Your task to perform on an android device: turn off smart reply in the gmail app Image 0: 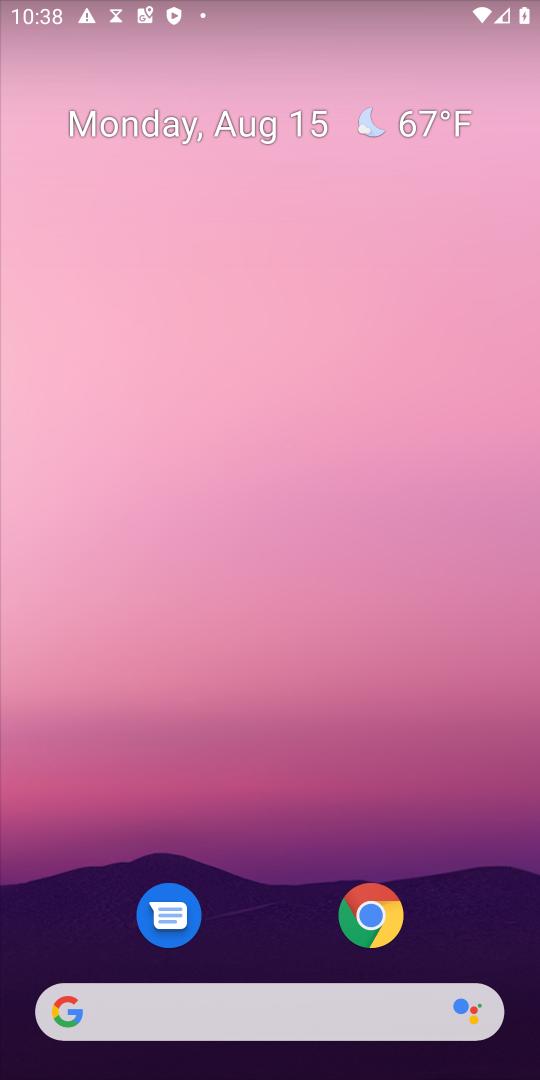
Step 0: press home button
Your task to perform on an android device: turn off smart reply in the gmail app Image 1: 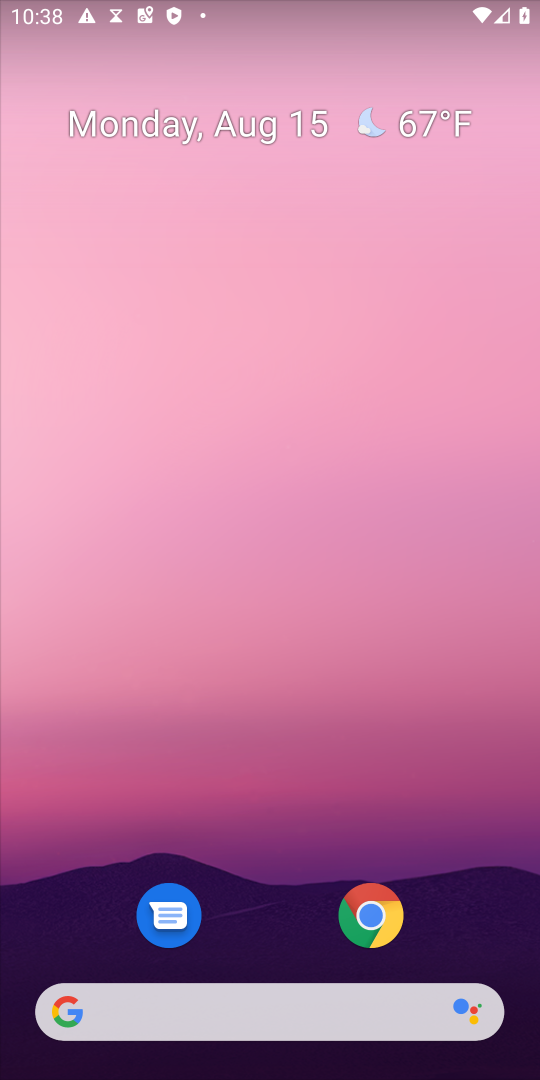
Step 1: drag from (276, 952) to (428, 100)
Your task to perform on an android device: turn off smart reply in the gmail app Image 2: 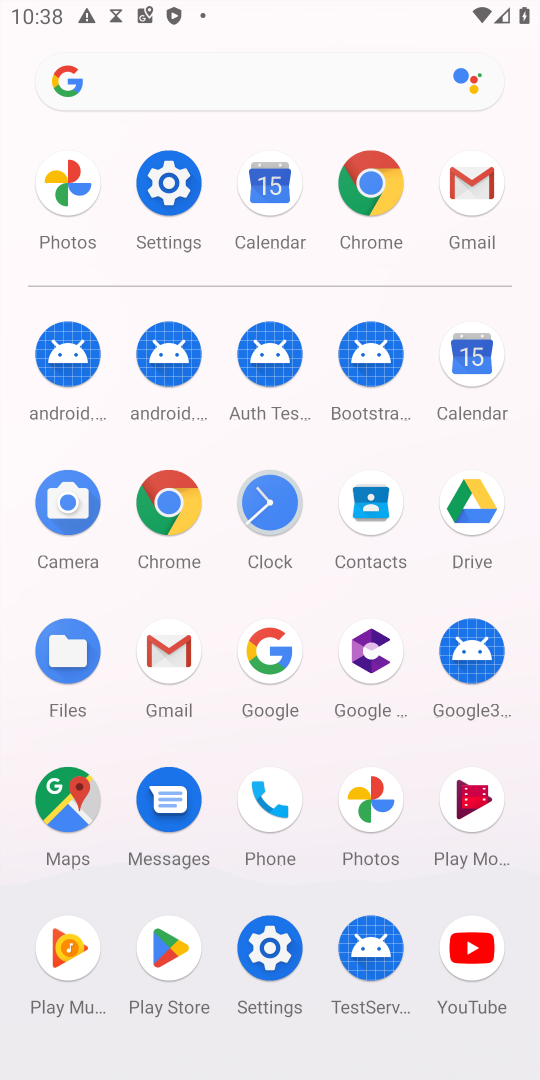
Step 2: click (475, 173)
Your task to perform on an android device: turn off smart reply in the gmail app Image 3: 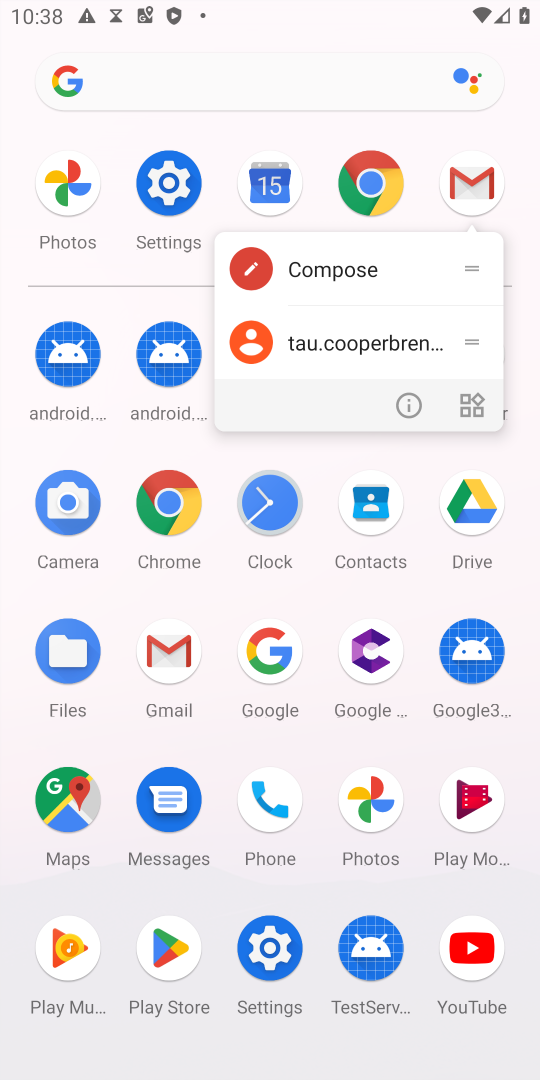
Step 3: click (472, 191)
Your task to perform on an android device: turn off smart reply in the gmail app Image 4: 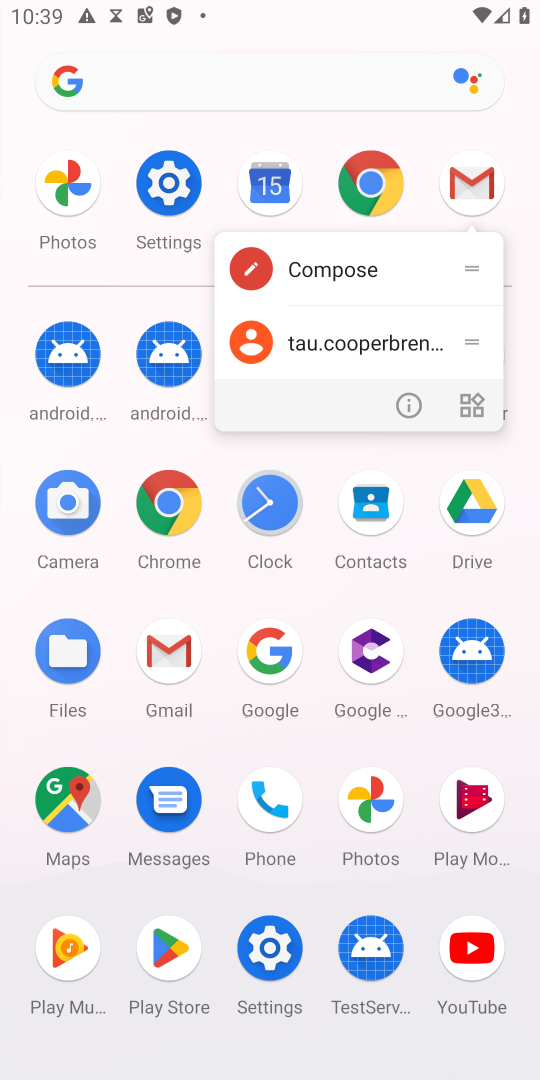
Step 4: click (472, 191)
Your task to perform on an android device: turn off smart reply in the gmail app Image 5: 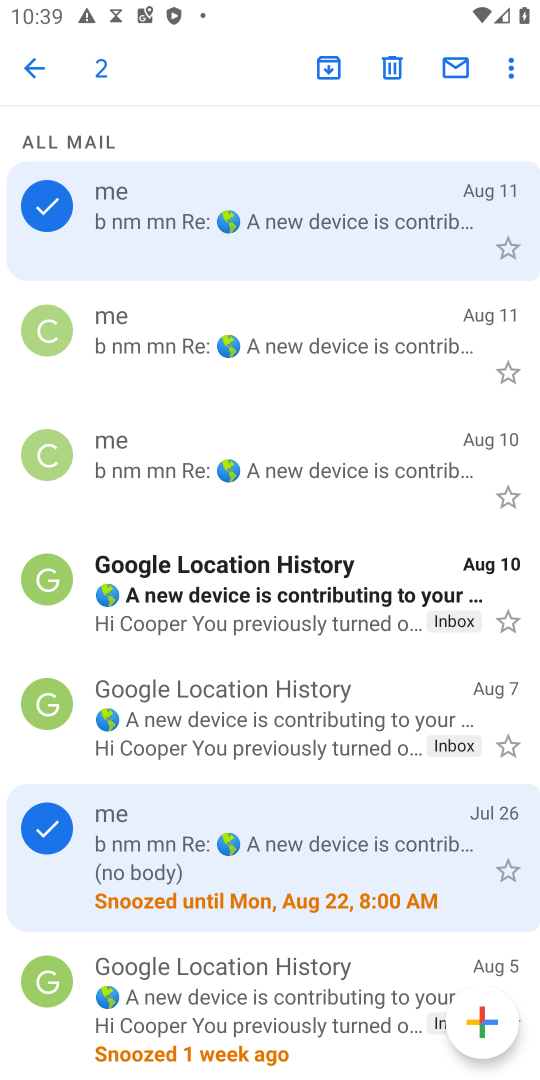
Step 5: press back button
Your task to perform on an android device: turn off smart reply in the gmail app Image 6: 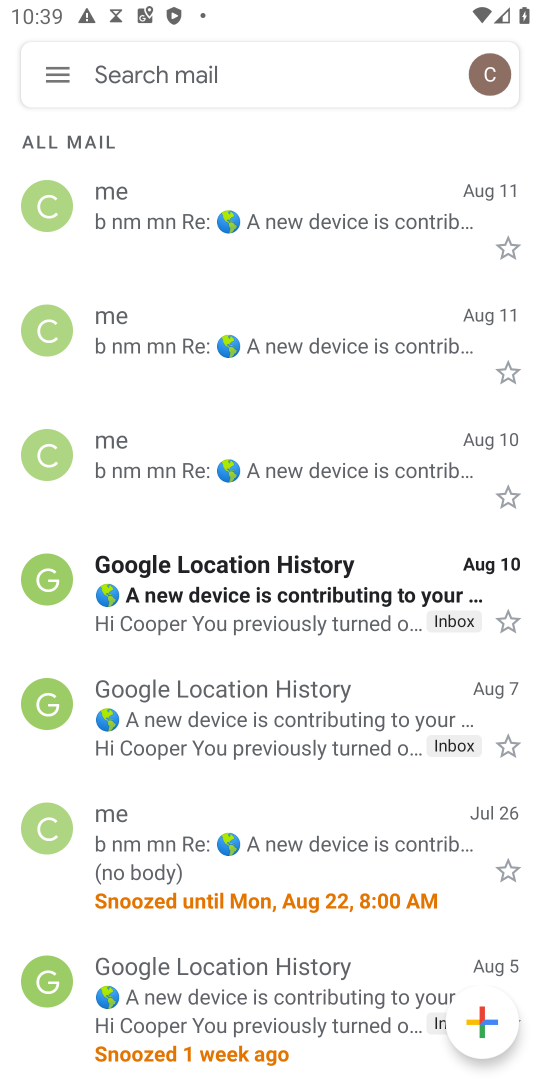
Step 6: click (64, 62)
Your task to perform on an android device: turn off smart reply in the gmail app Image 7: 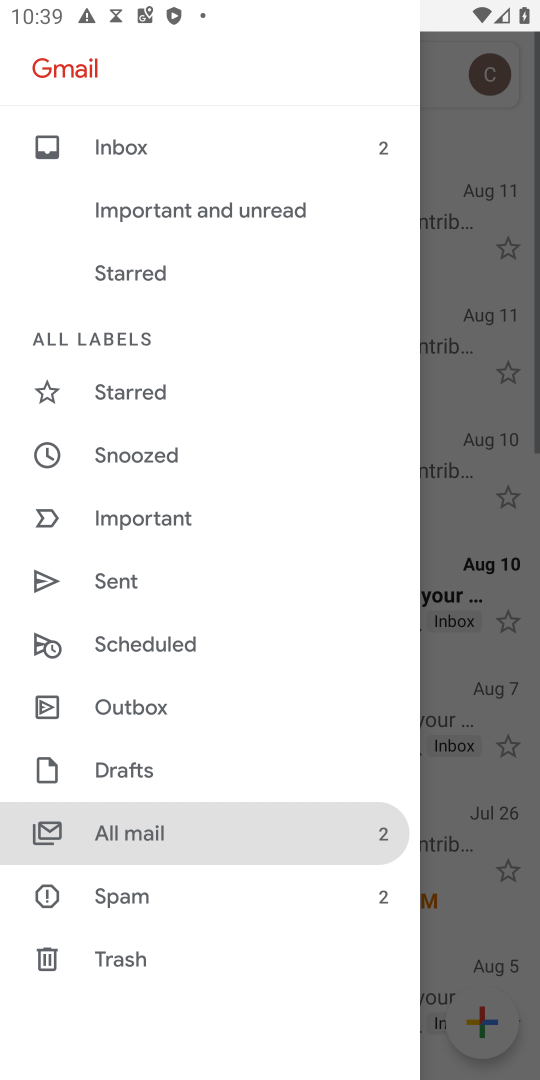
Step 7: drag from (363, 966) to (417, 352)
Your task to perform on an android device: turn off smart reply in the gmail app Image 8: 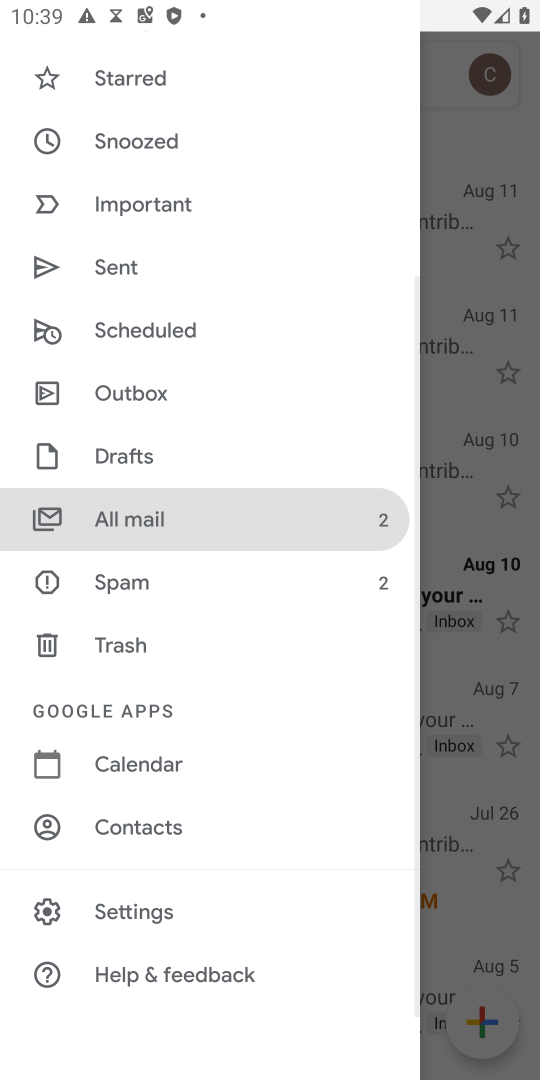
Step 8: click (152, 912)
Your task to perform on an android device: turn off smart reply in the gmail app Image 9: 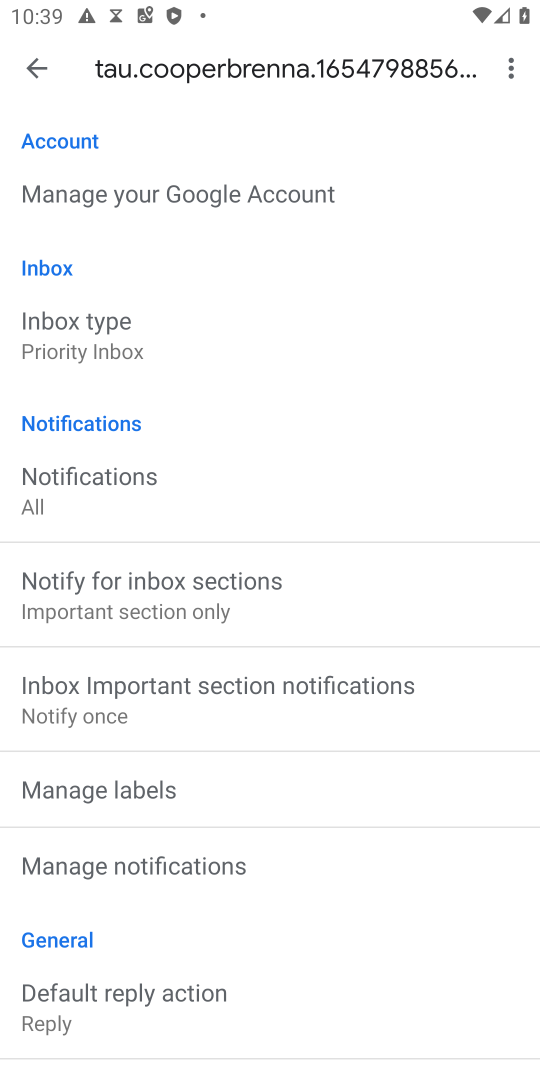
Step 9: drag from (414, 963) to (441, 282)
Your task to perform on an android device: turn off smart reply in the gmail app Image 10: 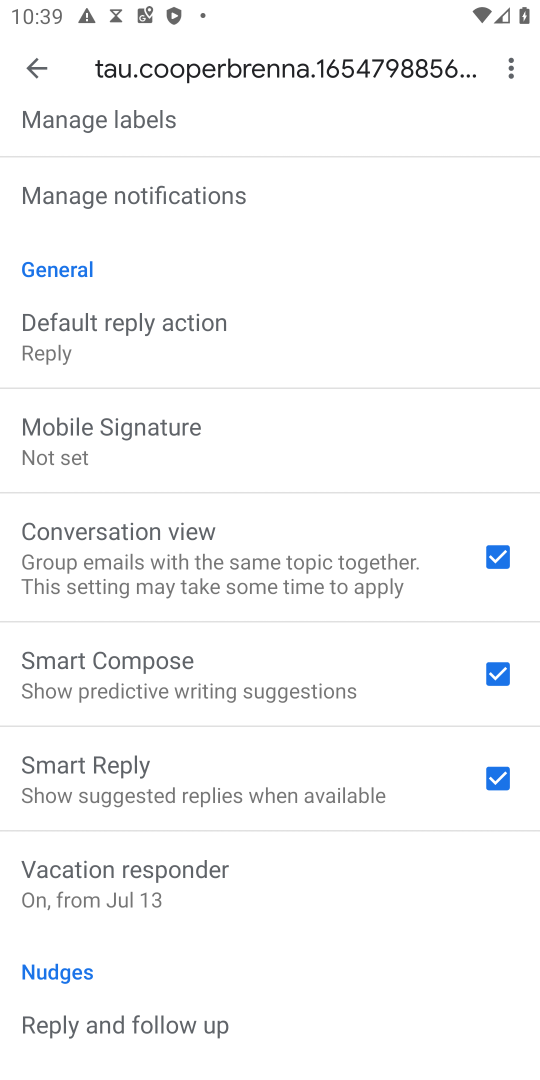
Step 10: click (485, 775)
Your task to perform on an android device: turn off smart reply in the gmail app Image 11: 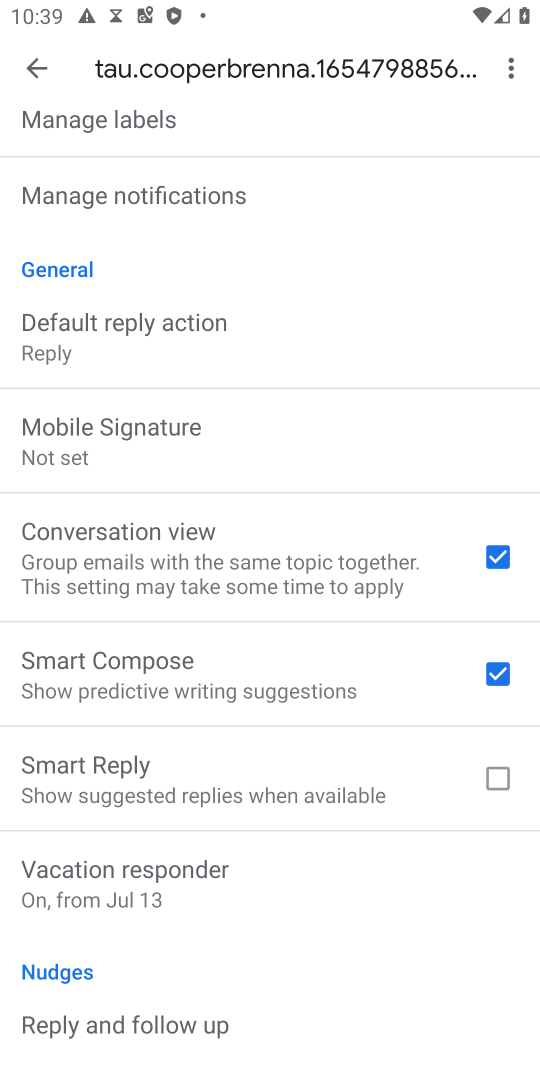
Step 11: task complete